Your task to perform on an android device: Open Google Maps Image 0: 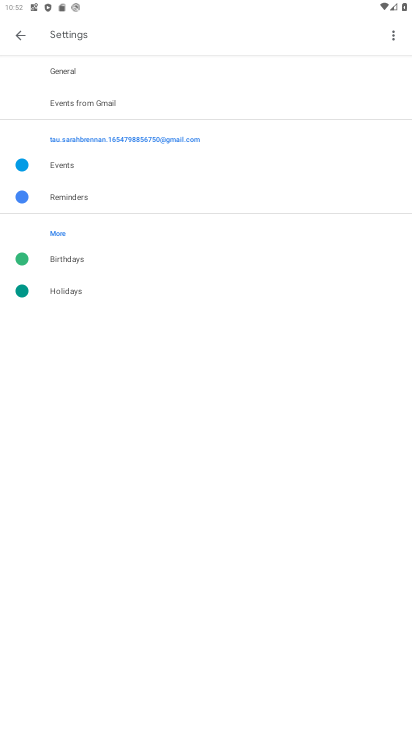
Step 0: press home button
Your task to perform on an android device: Open Google Maps Image 1: 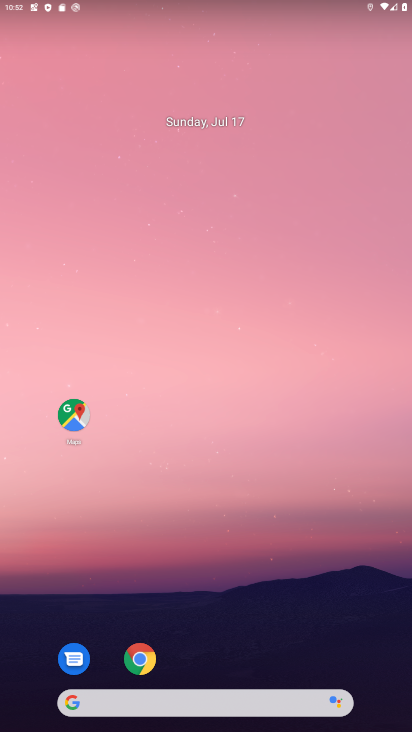
Step 1: click (67, 409)
Your task to perform on an android device: Open Google Maps Image 2: 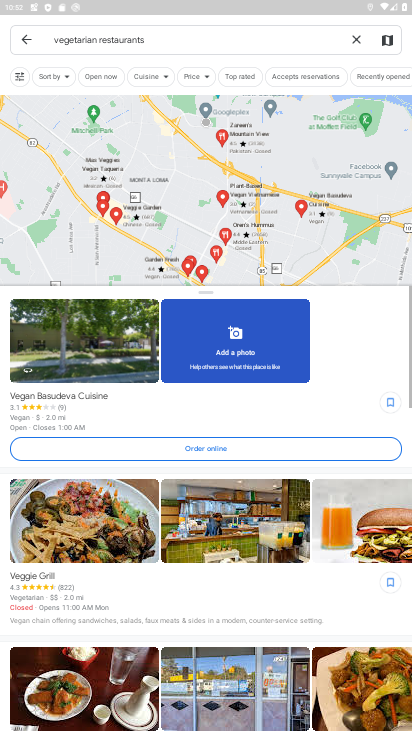
Step 2: task complete